Your task to perform on an android device: Open the calendar app, open the side menu, and click the "Day" option Image 0: 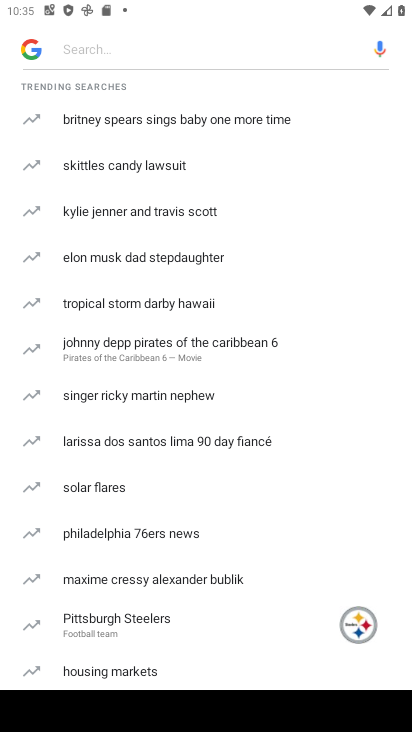
Step 0: press back button
Your task to perform on an android device: Open the calendar app, open the side menu, and click the "Day" option Image 1: 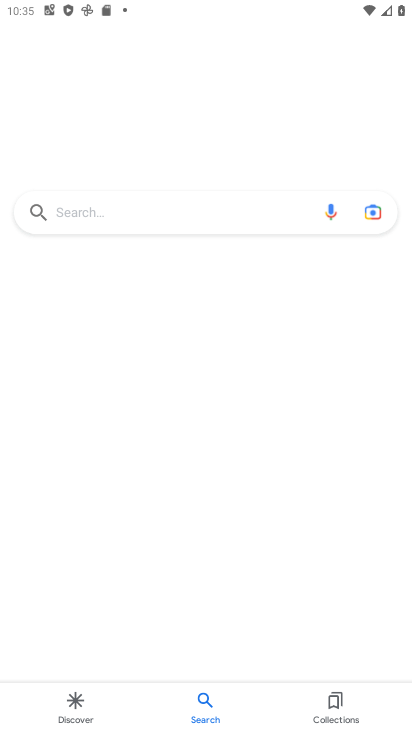
Step 1: press back button
Your task to perform on an android device: Open the calendar app, open the side menu, and click the "Day" option Image 2: 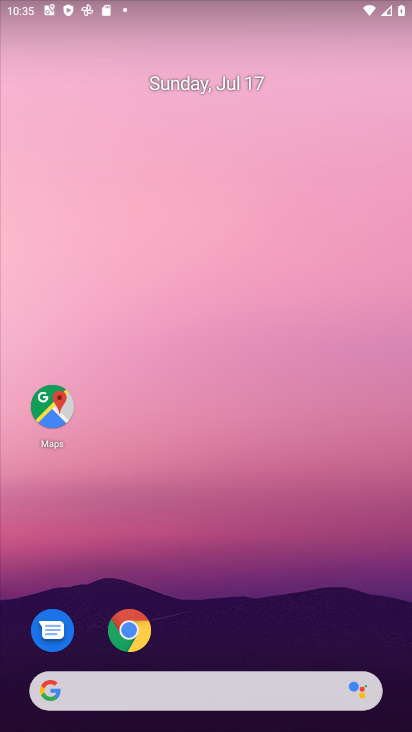
Step 2: drag from (307, 651) to (281, 18)
Your task to perform on an android device: Open the calendar app, open the side menu, and click the "Day" option Image 3: 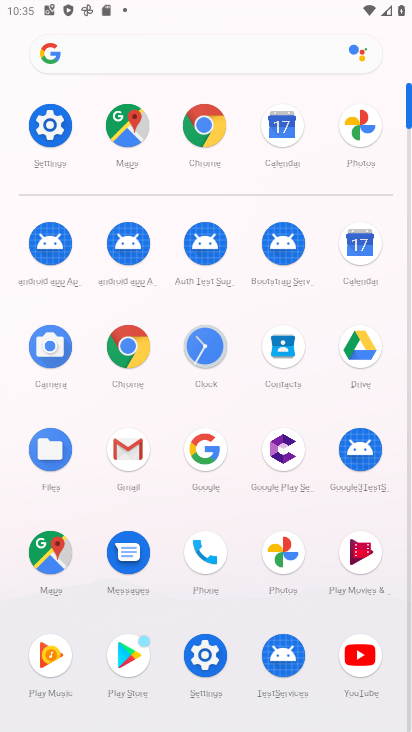
Step 3: click (347, 269)
Your task to perform on an android device: Open the calendar app, open the side menu, and click the "Day" option Image 4: 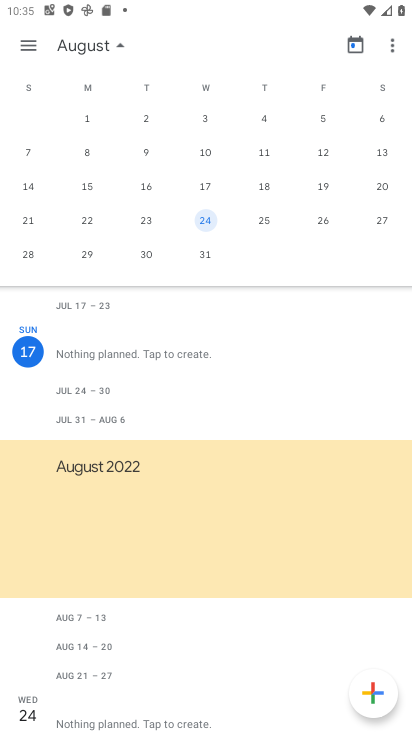
Step 4: click (39, 57)
Your task to perform on an android device: Open the calendar app, open the side menu, and click the "Day" option Image 5: 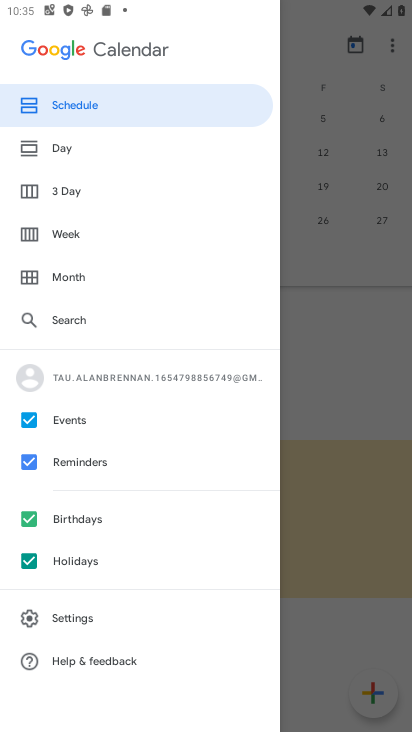
Step 5: click (71, 140)
Your task to perform on an android device: Open the calendar app, open the side menu, and click the "Day" option Image 6: 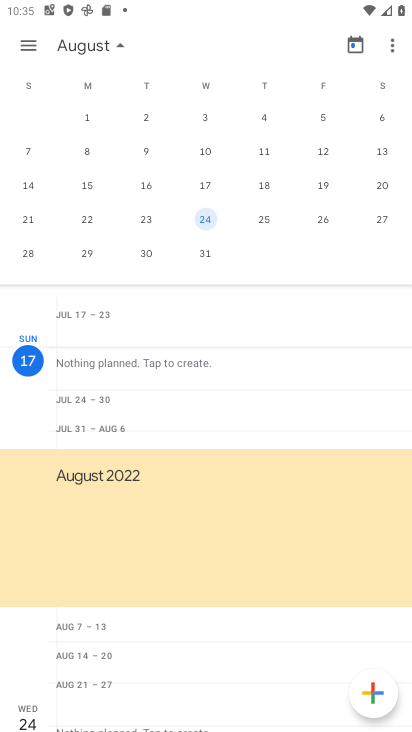
Step 6: task complete